Your task to perform on an android device: allow cookies in the chrome app Image 0: 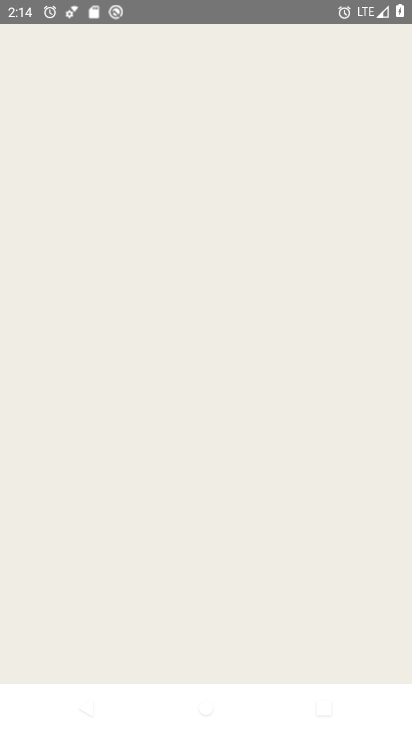
Step 0: drag from (233, 237) to (318, 159)
Your task to perform on an android device: allow cookies in the chrome app Image 1: 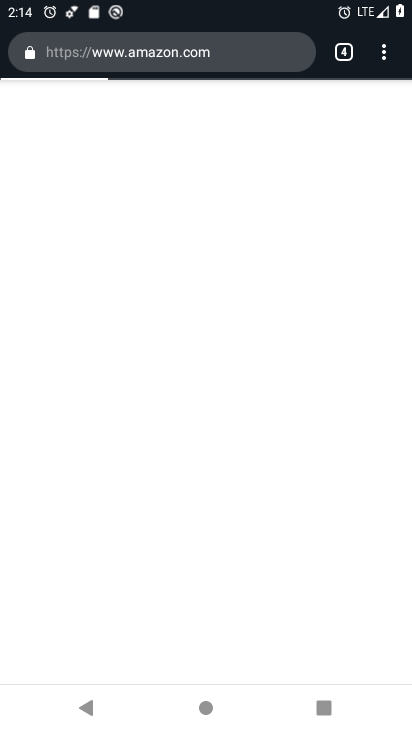
Step 1: press home button
Your task to perform on an android device: allow cookies in the chrome app Image 2: 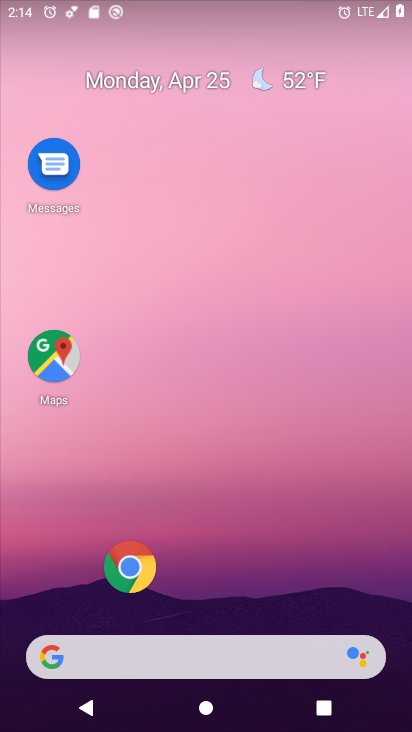
Step 2: drag from (250, 499) to (312, 160)
Your task to perform on an android device: allow cookies in the chrome app Image 3: 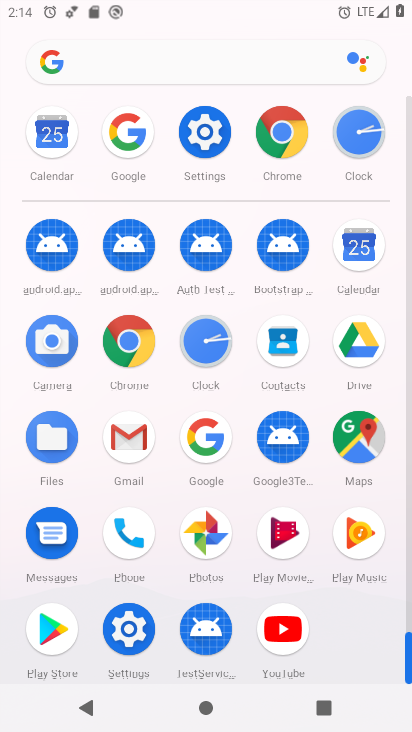
Step 3: click (278, 162)
Your task to perform on an android device: allow cookies in the chrome app Image 4: 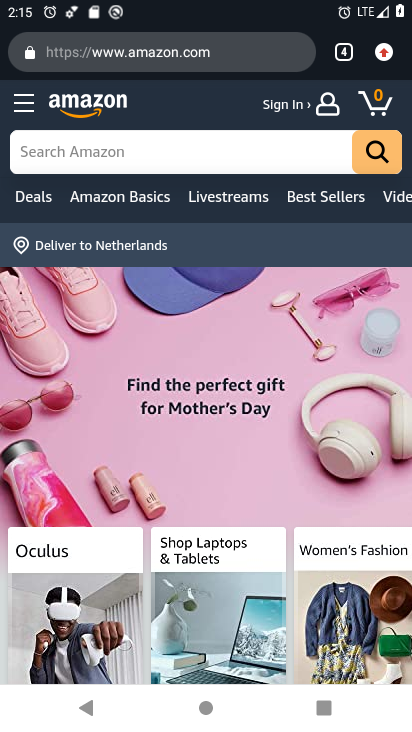
Step 4: click (384, 61)
Your task to perform on an android device: allow cookies in the chrome app Image 5: 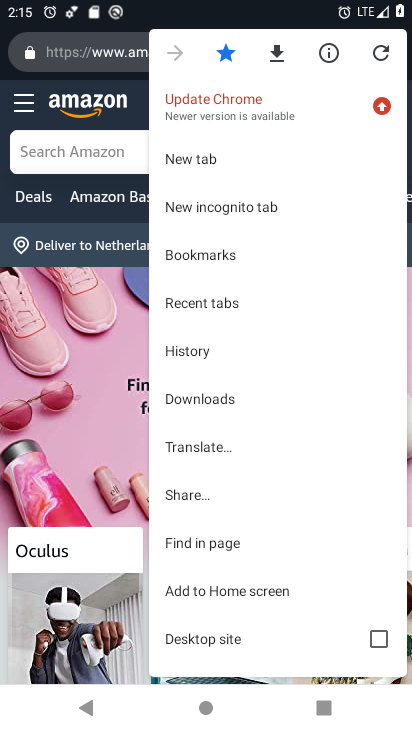
Step 5: drag from (214, 641) to (281, 66)
Your task to perform on an android device: allow cookies in the chrome app Image 6: 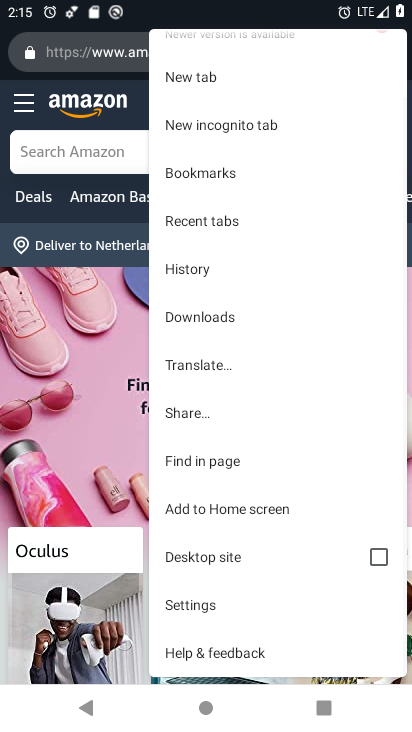
Step 6: click (223, 598)
Your task to perform on an android device: allow cookies in the chrome app Image 7: 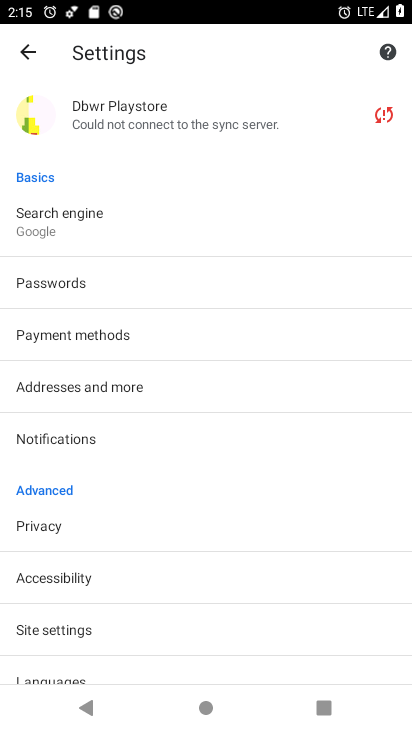
Step 7: drag from (152, 533) to (207, 237)
Your task to perform on an android device: allow cookies in the chrome app Image 8: 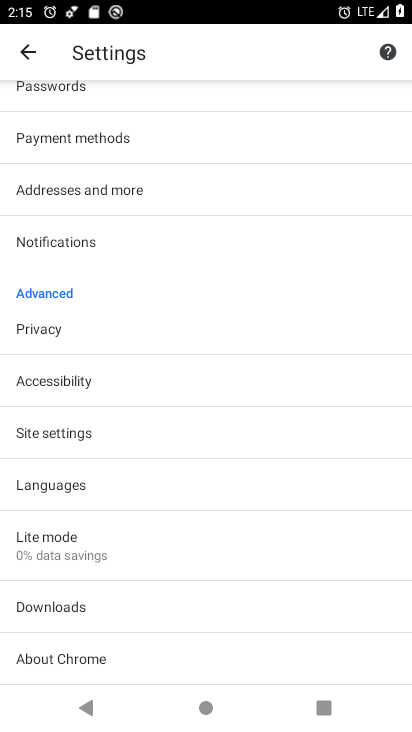
Step 8: click (80, 435)
Your task to perform on an android device: allow cookies in the chrome app Image 9: 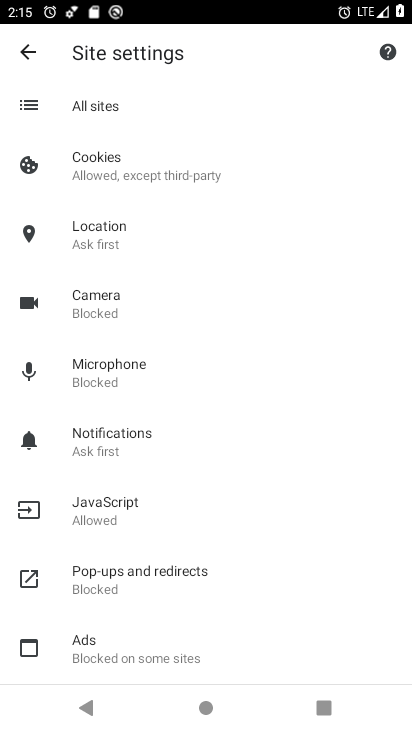
Step 9: click (156, 174)
Your task to perform on an android device: allow cookies in the chrome app Image 10: 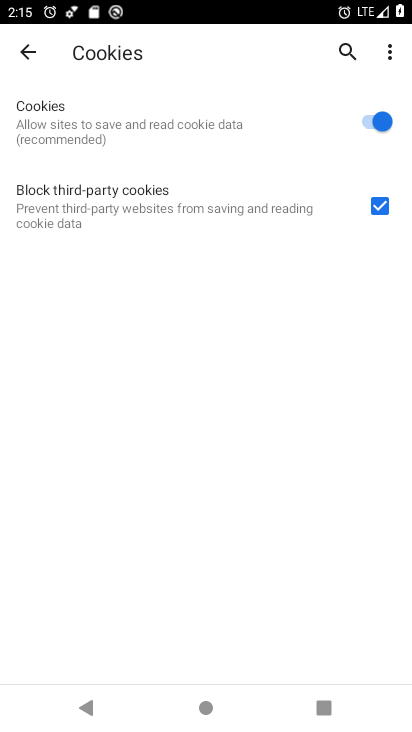
Step 10: task complete